Your task to perform on an android device: Search for hotels in Philadelphia Image 0: 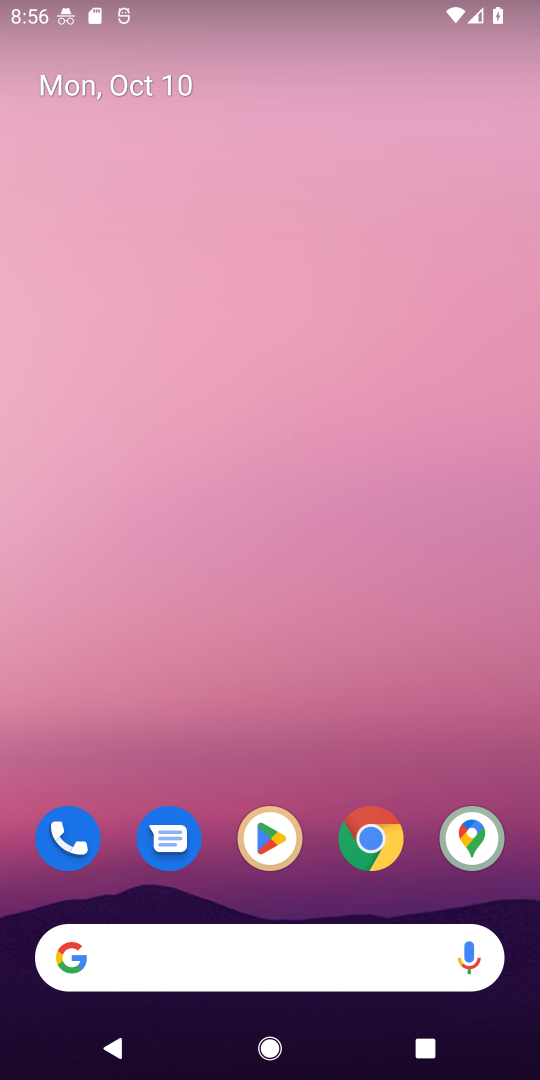
Step 0: click (372, 847)
Your task to perform on an android device: Search for hotels in Philadelphia Image 1: 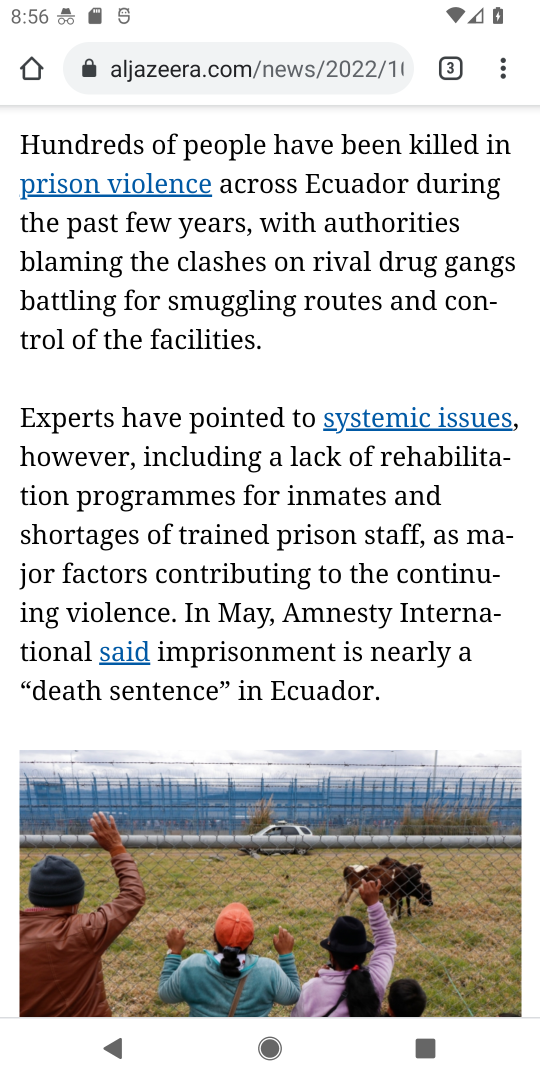
Step 1: click (244, 48)
Your task to perform on an android device: Search for hotels in Philadelphia Image 2: 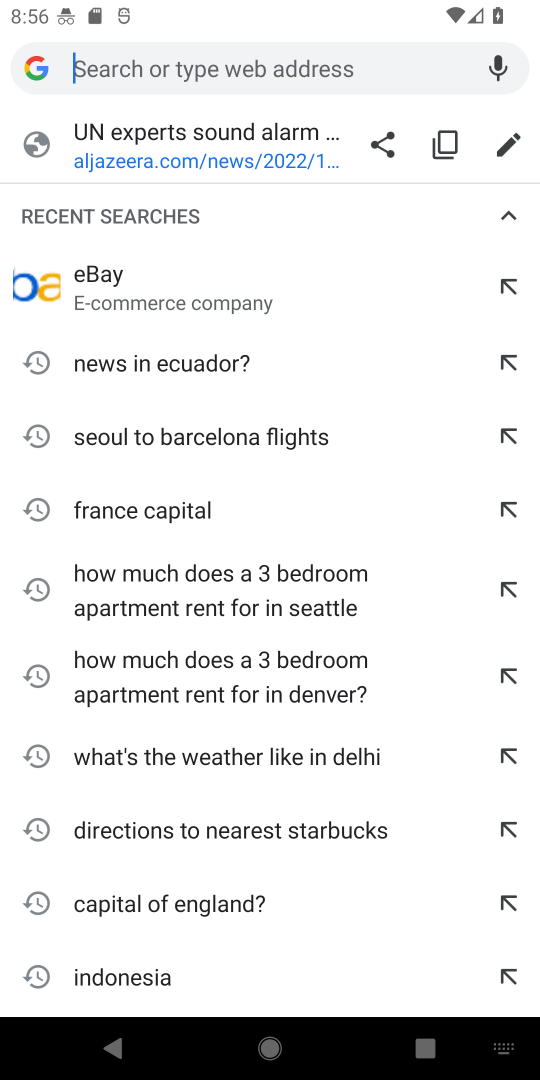
Step 2: type "hotels in Philadelphia"
Your task to perform on an android device: Search for hotels in Philadelphia Image 3: 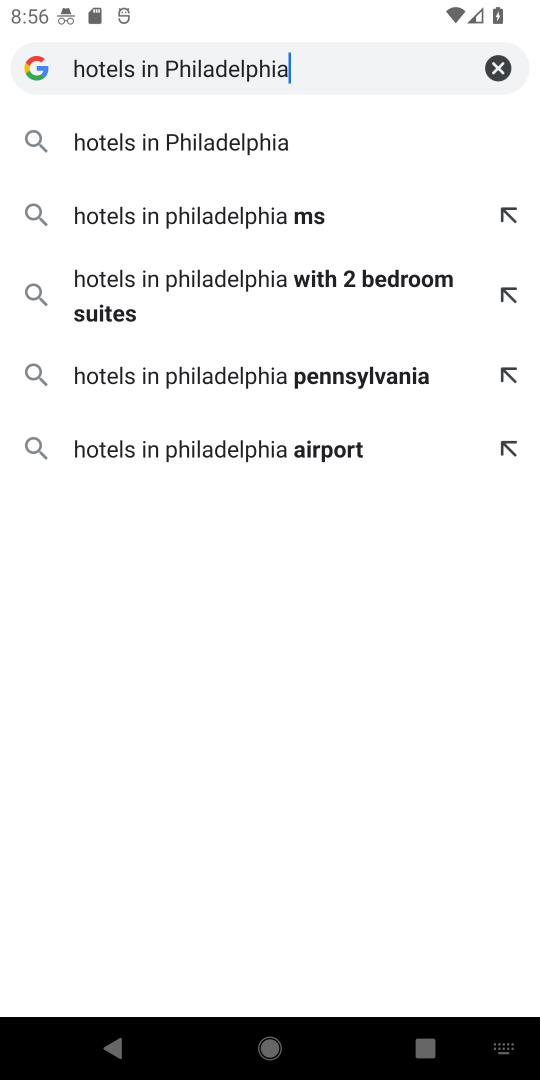
Step 3: click (165, 138)
Your task to perform on an android device: Search for hotels in Philadelphia Image 4: 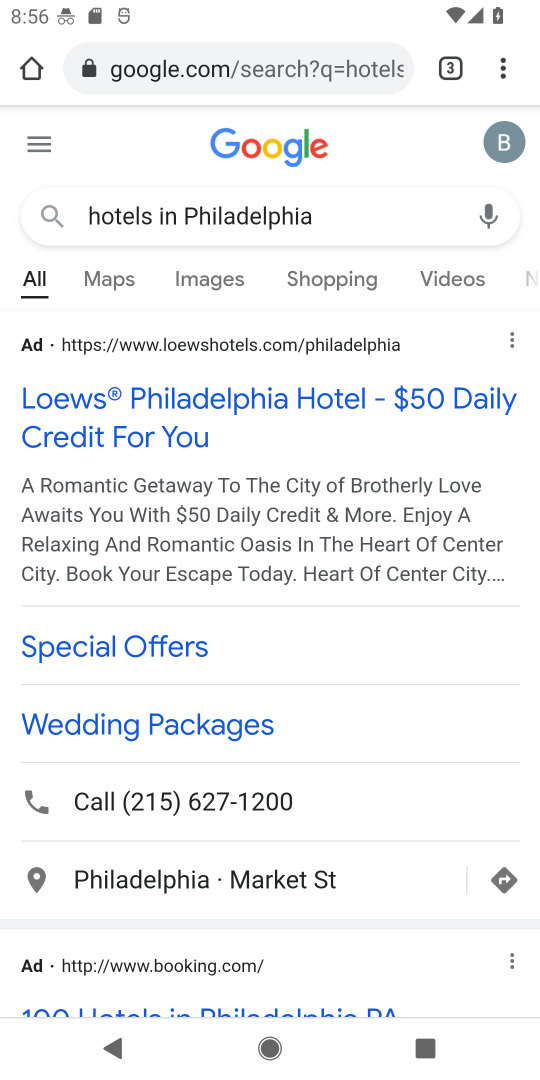
Step 4: click (202, 408)
Your task to perform on an android device: Search for hotels in Philadelphia Image 5: 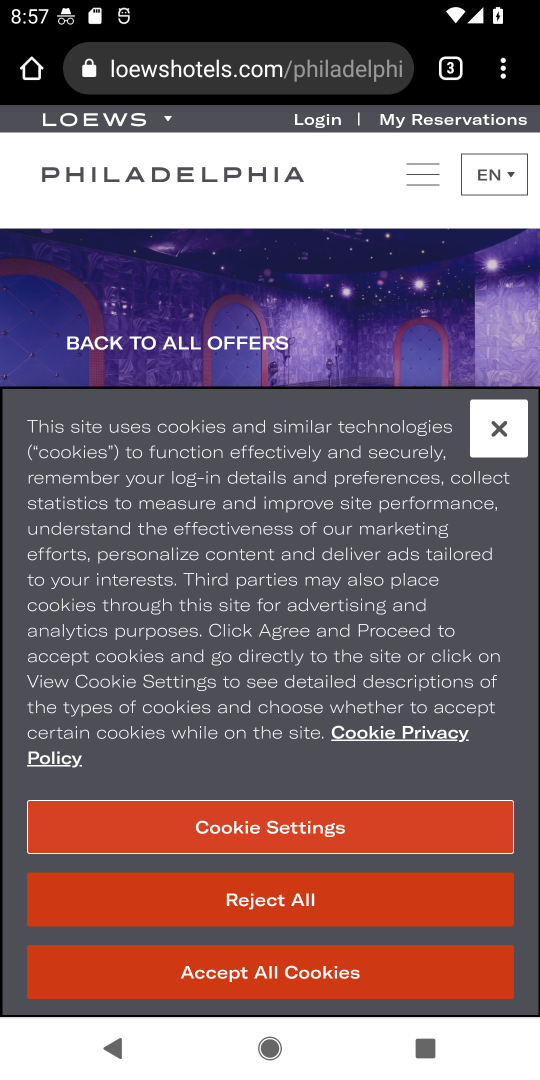
Step 5: click (497, 427)
Your task to perform on an android device: Search for hotels in Philadelphia Image 6: 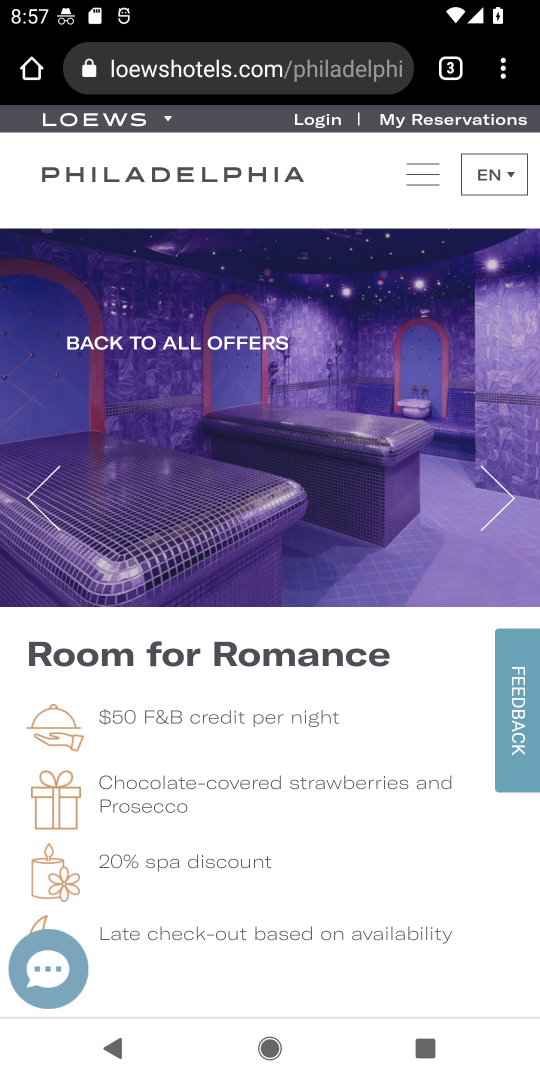
Step 6: task complete